Your task to perform on an android device: Find coffee shops on Maps Image 0: 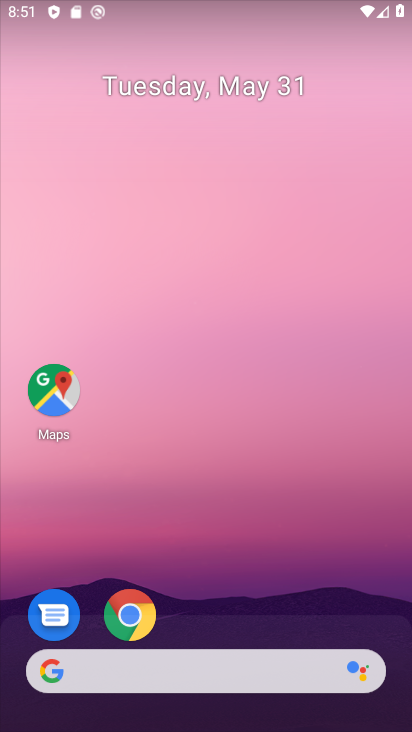
Step 0: click (54, 382)
Your task to perform on an android device: Find coffee shops on Maps Image 1: 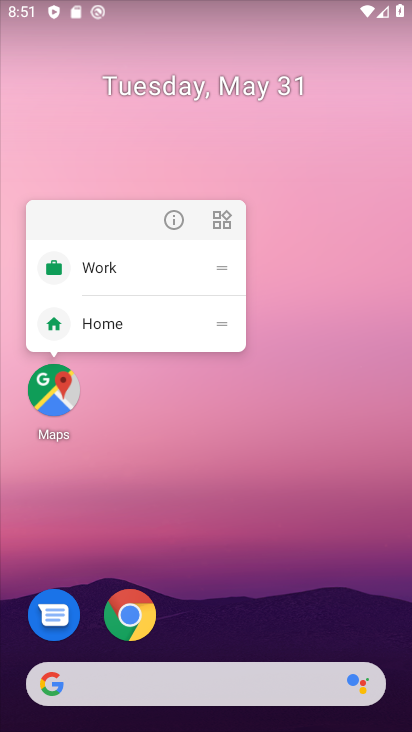
Step 1: click (53, 385)
Your task to perform on an android device: Find coffee shops on Maps Image 2: 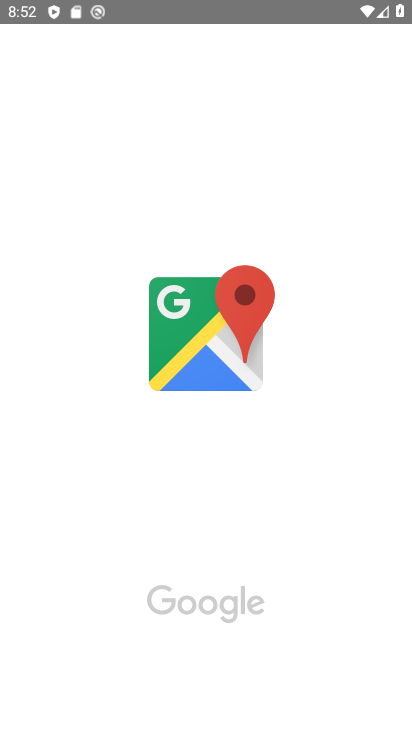
Step 2: click (232, 366)
Your task to perform on an android device: Find coffee shops on Maps Image 3: 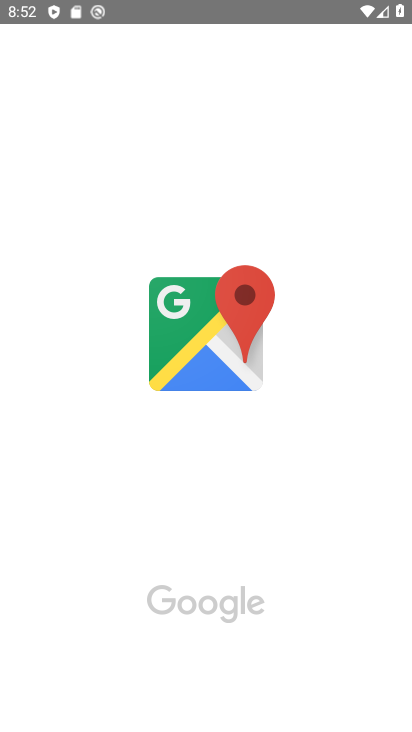
Step 3: task complete